Your task to perform on an android device: What's the weather? Image 0: 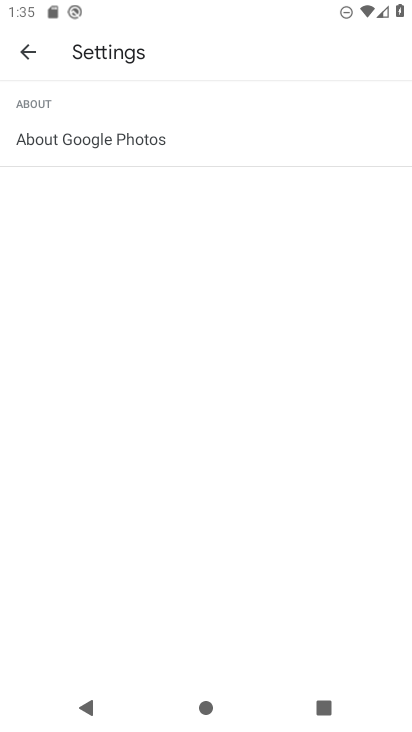
Step 0: press home button
Your task to perform on an android device: What's the weather? Image 1: 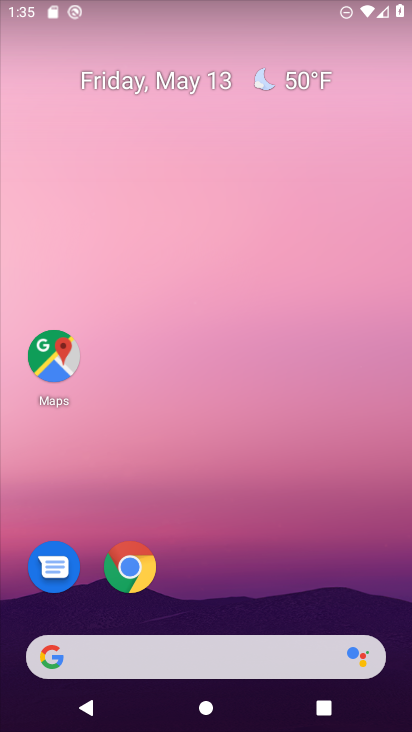
Step 1: drag from (260, 628) to (261, 225)
Your task to perform on an android device: What's the weather? Image 2: 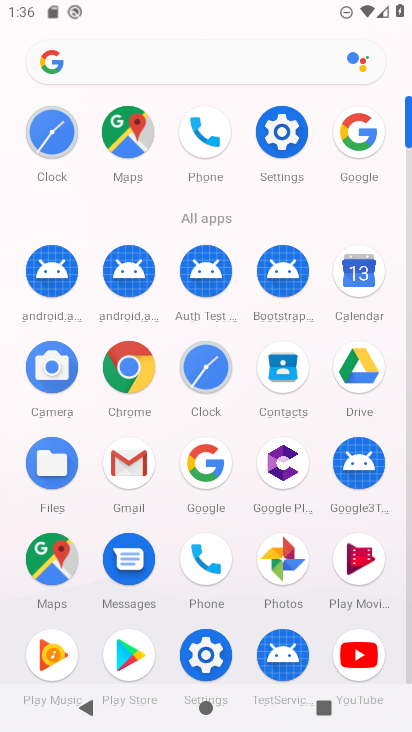
Step 2: click (346, 134)
Your task to perform on an android device: What's the weather? Image 3: 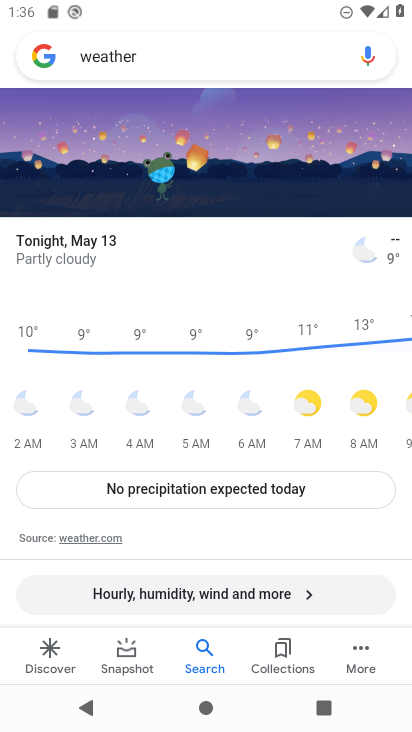
Step 3: task complete